Your task to perform on an android device: Go to eBay Image 0: 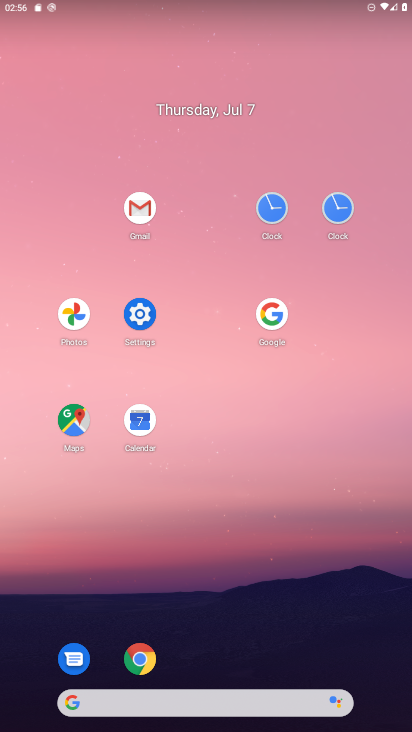
Step 0: click (144, 654)
Your task to perform on an android device: Go to eBay Image 1: 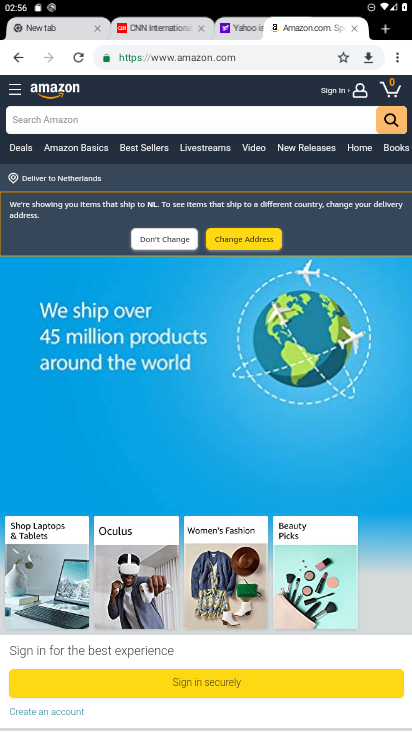
Step 1: click (387, 24)
Your task to perform on an android device: Go to eBay Image 2: 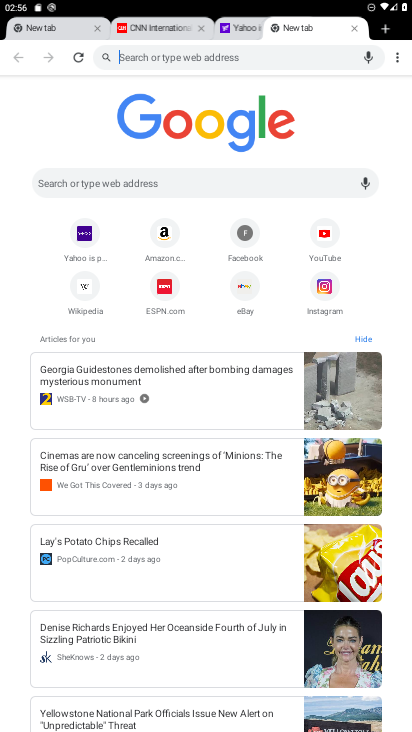
Step 2: click (238, 286)
Your task to perform on an android device: Go to eBay Image 3: 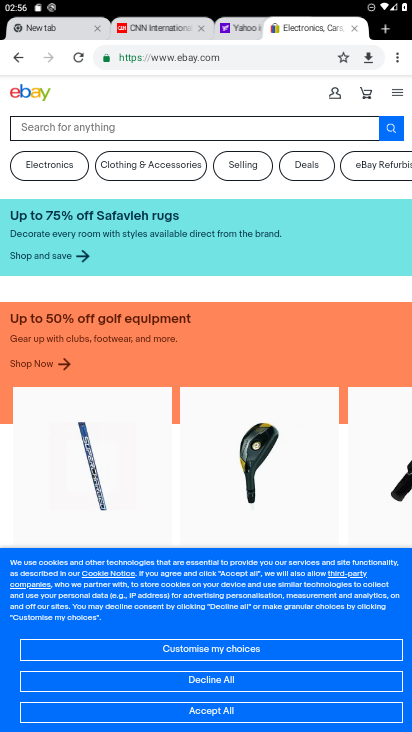
Step 3: task complete